Your task to perform on an android device: refresh tabs in the chrome app Image 0: 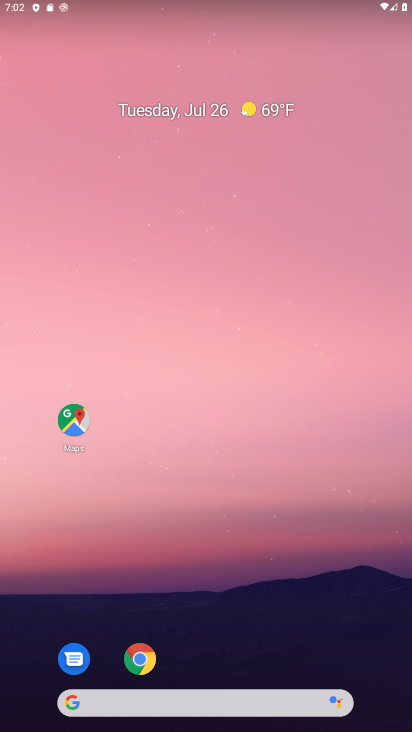
Step 0: drag from (213, 722) to (221, 102)
Your task to perform on an android device: refresh tabs in the chrome app Image 1: 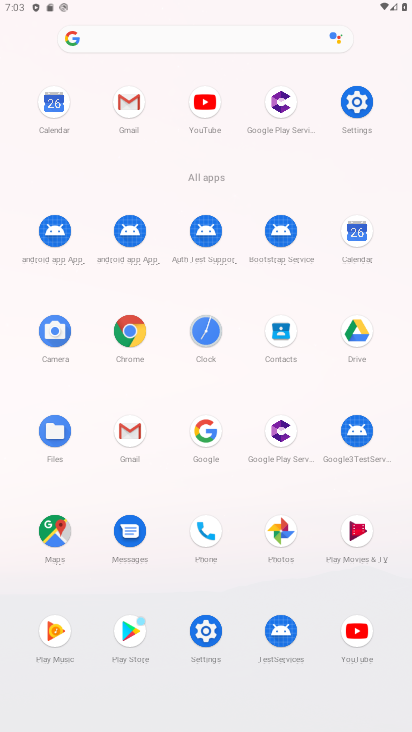
Step 1: click (123, 329)
Your task to perform on an android device: refresh tabs in the chrome app Image 2: 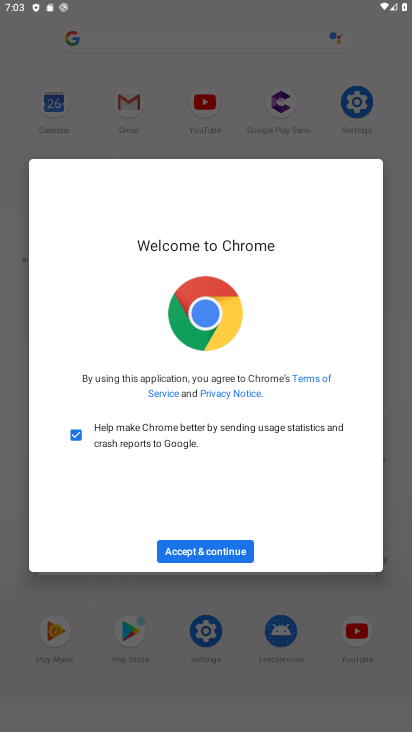
Step 2: click (234, 552)
Your task to perform on an android device: refresh tabs in the chrome app Image 3: 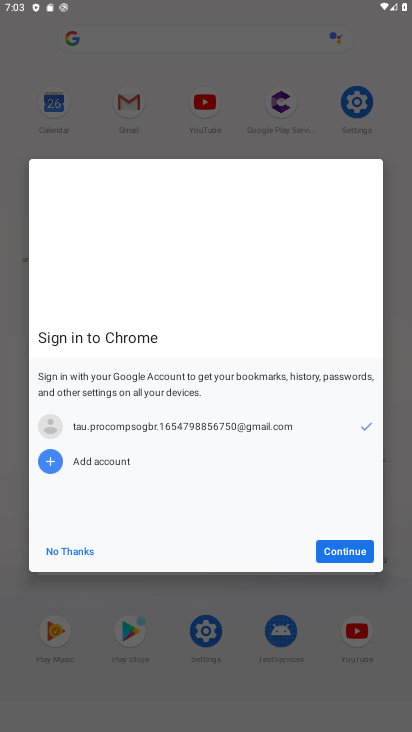
Step 3: click (337, 547)
Your task to perform on an android device: refresh tabs in the chrome app Image 4: 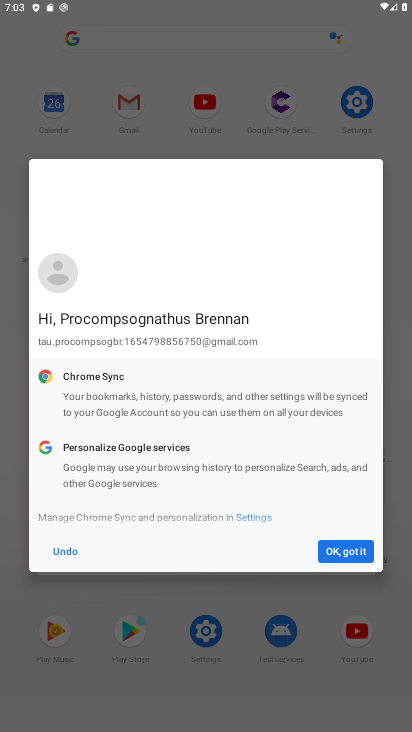
Step 4: click (337, 547)
Your task to perform on an android device: refresh tabs in the chrome app Image 5: 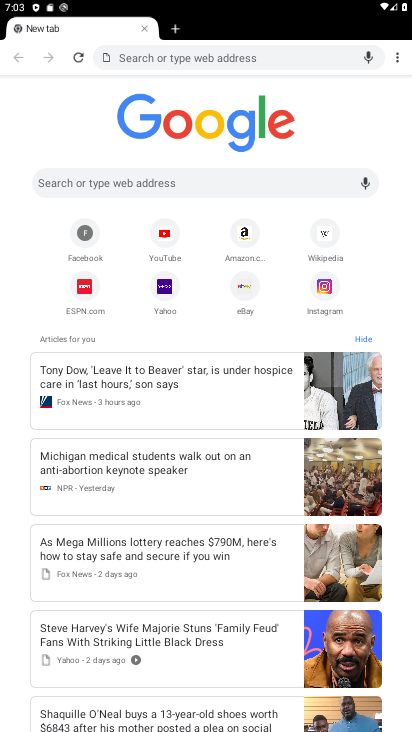
Step 5: click (398, 62)
Your task to perform on an android device: refresh tabs in the chrome app Image 6: 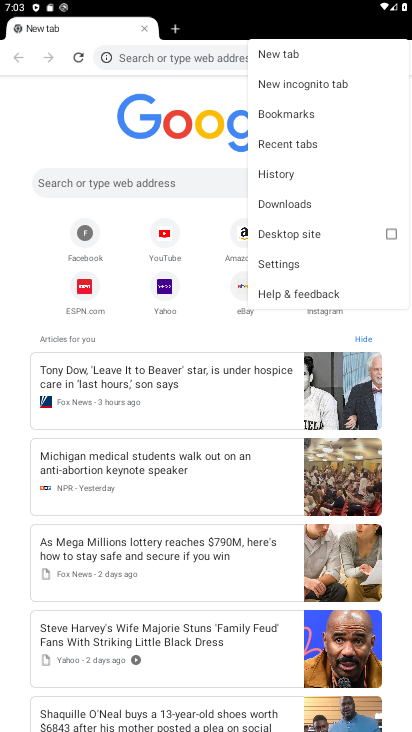
Step 6: click (77, 56)
Your task to perform on an android device: refresh tabs in the chrome app Image 7: 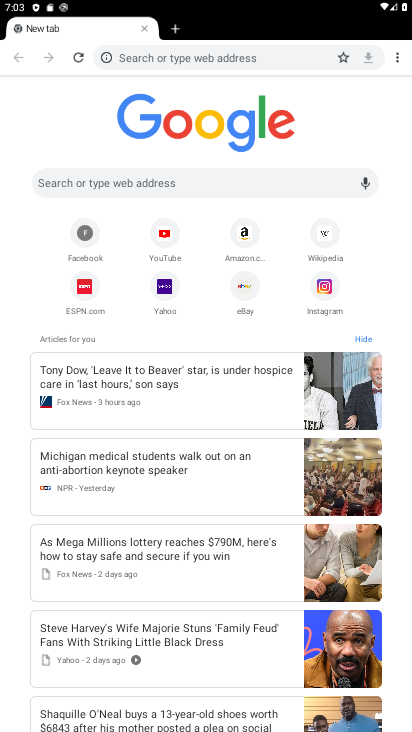
Step 7: click (74, 58)
Your task to perform on an android device: refresh tabs in the chrome app Image 8: 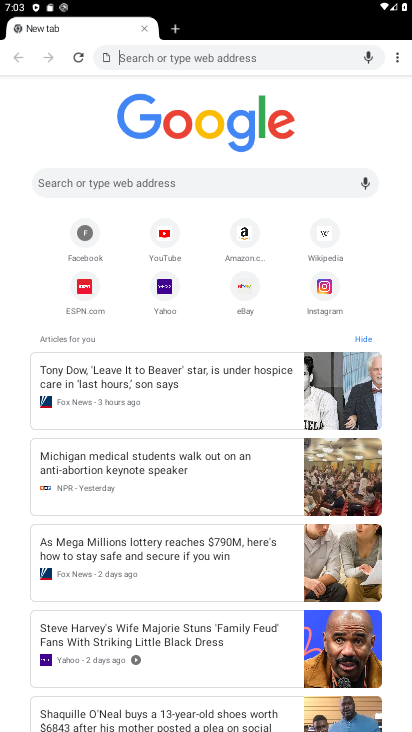
Step 8: task complete